Your task to perform on an android device: Search for macbook pro 15 inch on ebay.com, select the first entry, add it to the cart, then select checkout. Image 0: 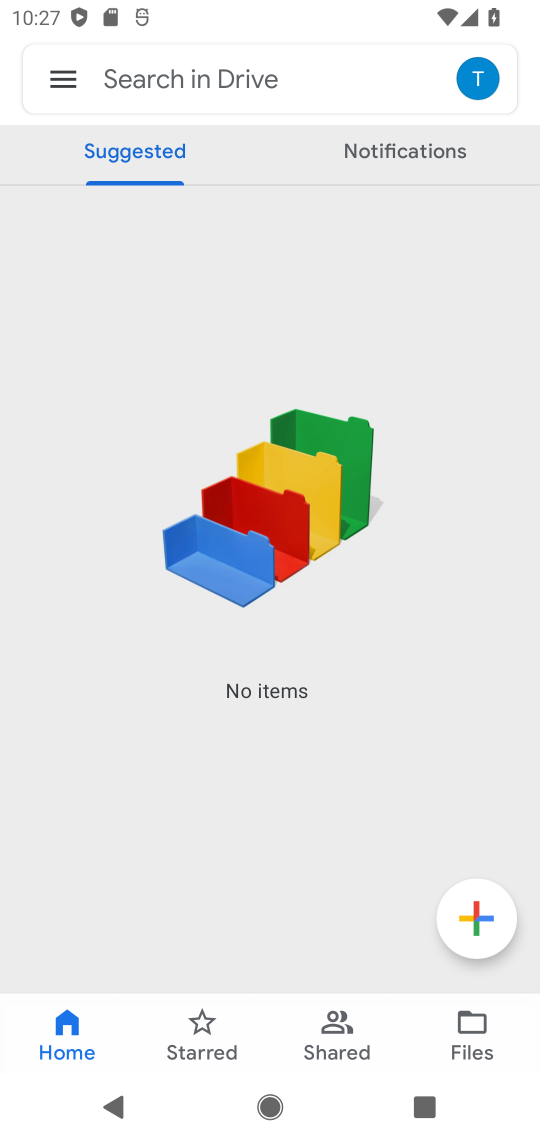
Step 0: press home button
Your task to perform on an android device: Search for macbook pro 15 inch on ebay.com, select the first entry, add it to the cart, then select checkout. Image 1: 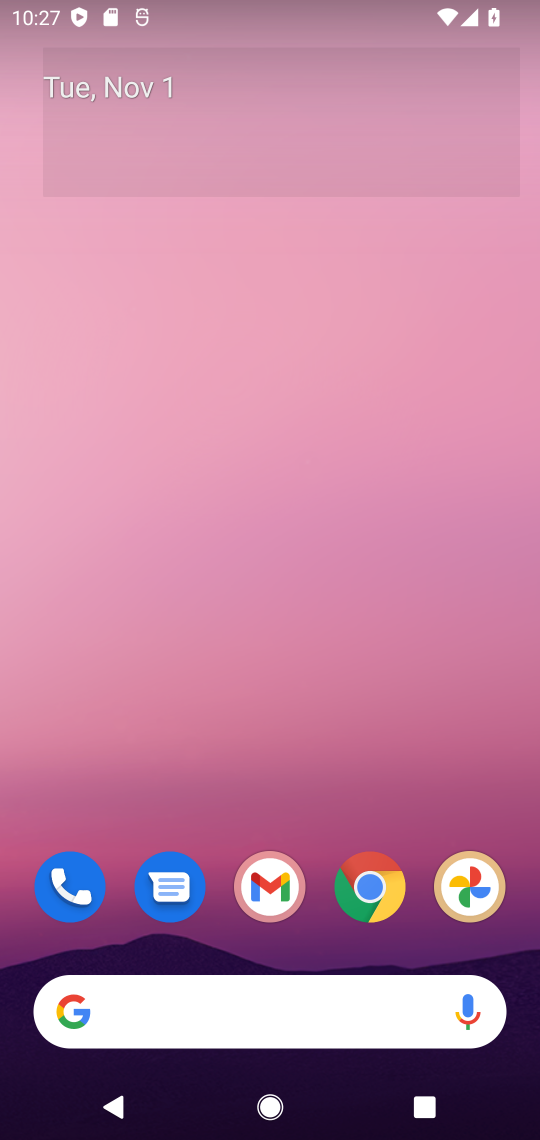
Step 1: click (363, 897)
Your task to perform on an android device: Search for macbook pro 15 inch on ebay.com, select the first entry, add it to the cart, then select checkout. Image 2: 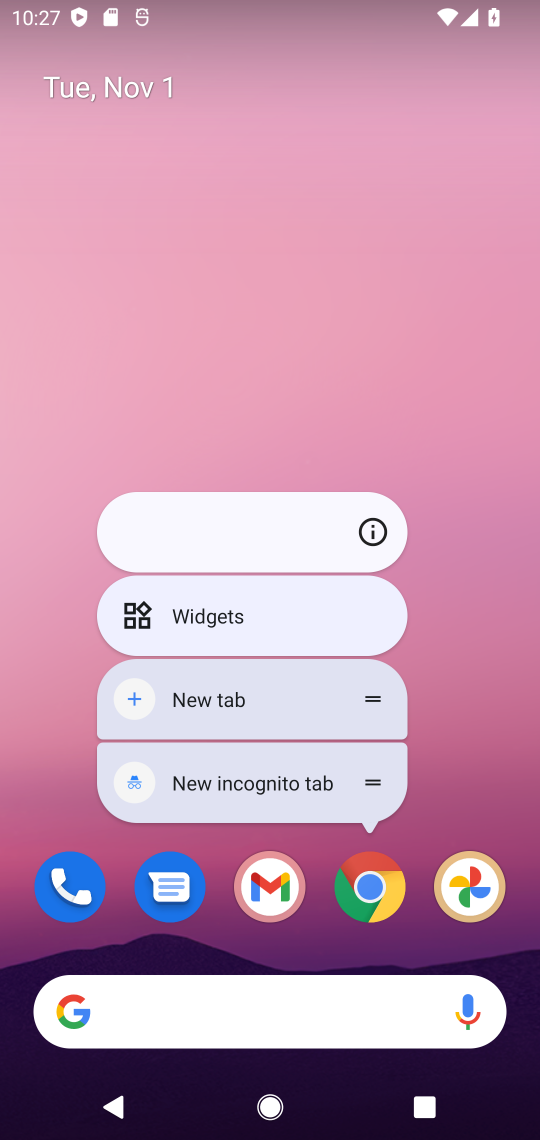
Step 2: click (463, 835)
Your task to perform on an android device: Search for macbook pro 15 inch on ebay.com, select the first entry, add it to the cart, then select checkout. Image 3: 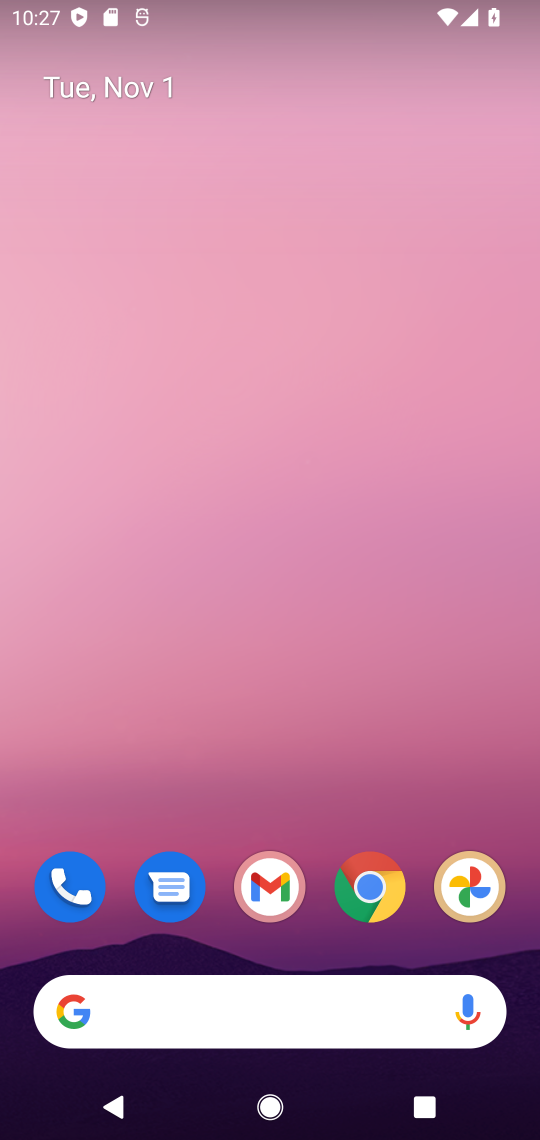
Step 3: click (374, 877)
Your task to perform on an android device: Search for macbook pro 15 inch on ebay.com, select the first entry, add it to the cart, then select checkout. Image 4: 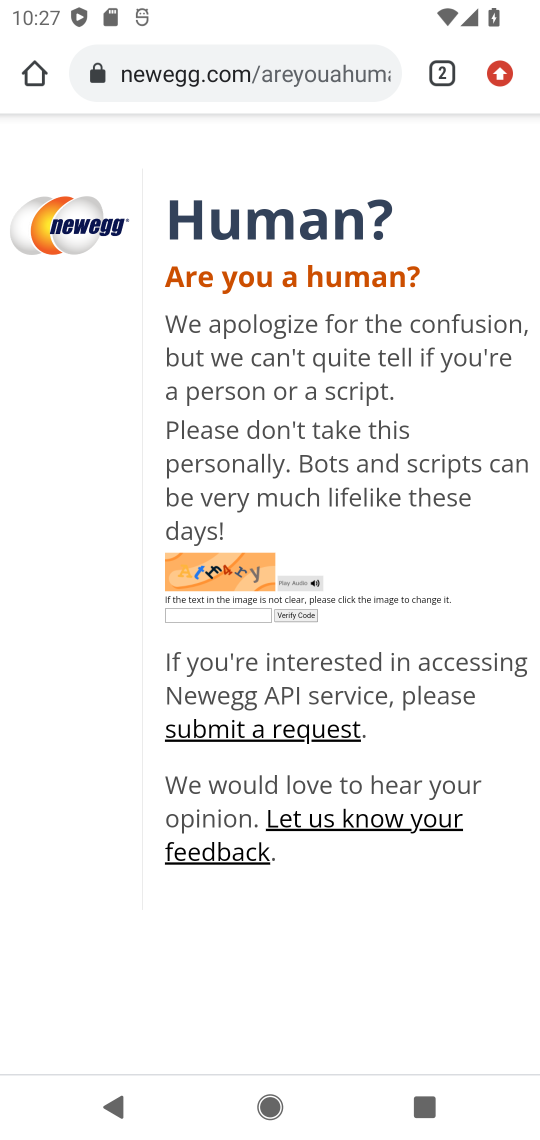
Step 4: click (256, 69)
Your task to perform on an android device: Search for macbook pro 15 inch on ebay.com, select the first entry, add it to the cart, then select checkout. Image 5: 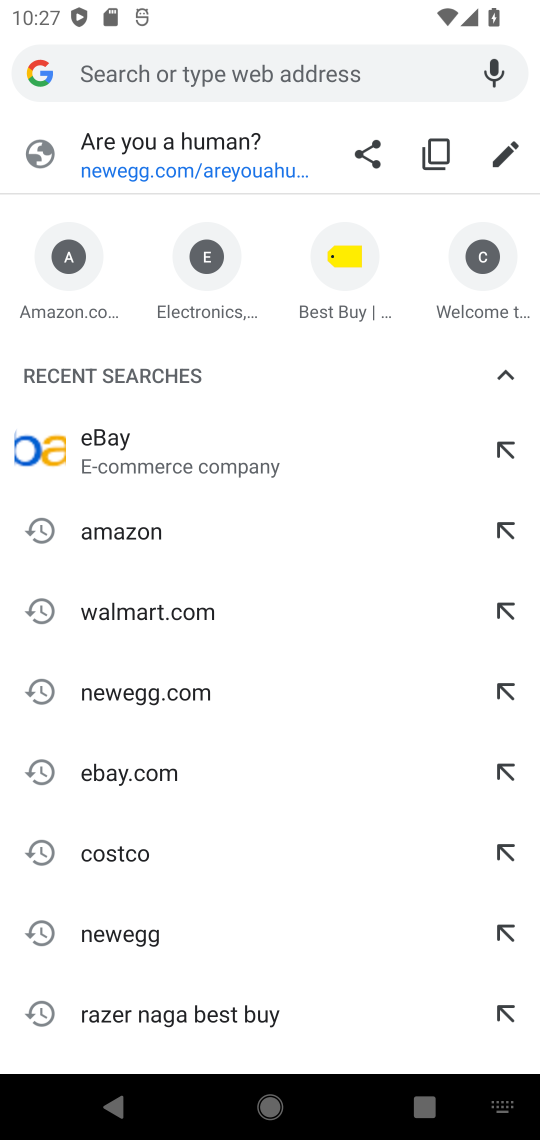
Step 5: type "ebay.com"
Your task to perform on an android device: Search for macbook pro 15 inch on ebay.com, select the first entry, add it to the cart, then select checkout. Image 6: 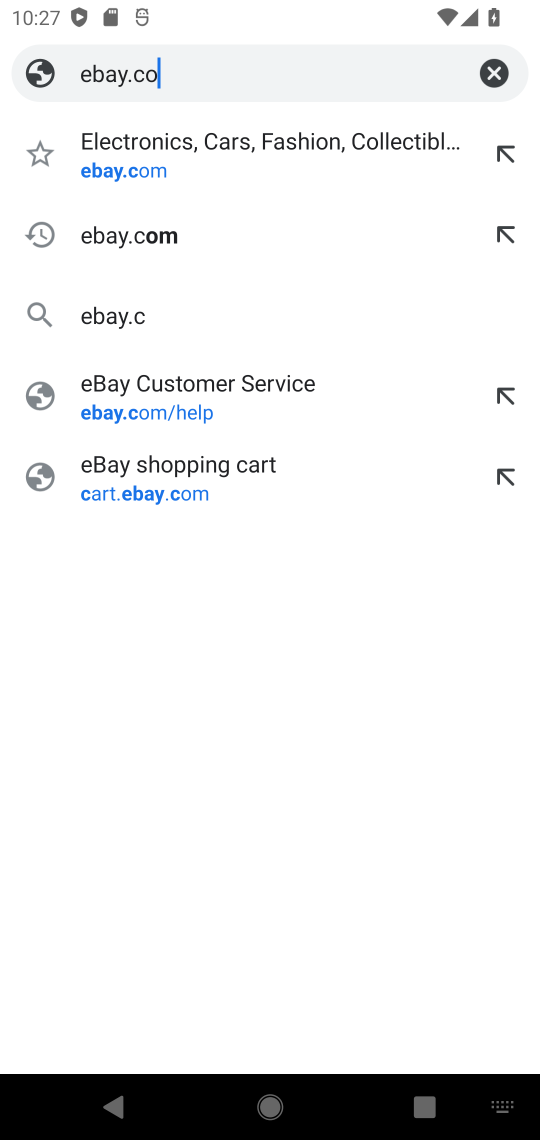
Step 6: press enter
Your task to perform on an android device: Search for macbook pro 15 inch on ebay.com, select the first entry, add it to the cart, then select checkout. Image 7: 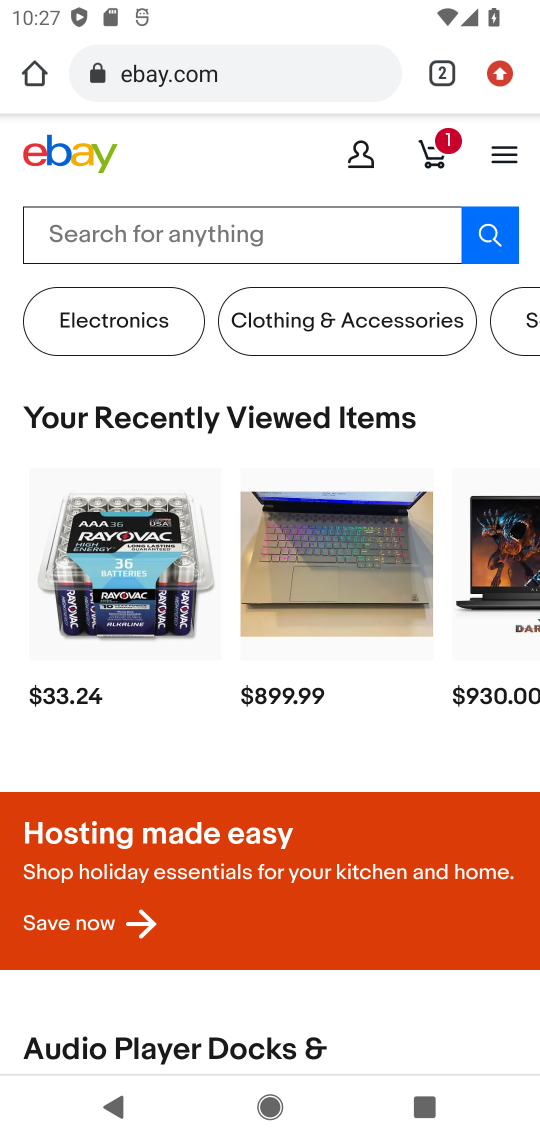
Step 7: click (276, 238)
Your task to perform on an android device: Search for macbook pro 15 inch on ebay.com, select the first entry, add it to the cart, then select checkout. Image 8: 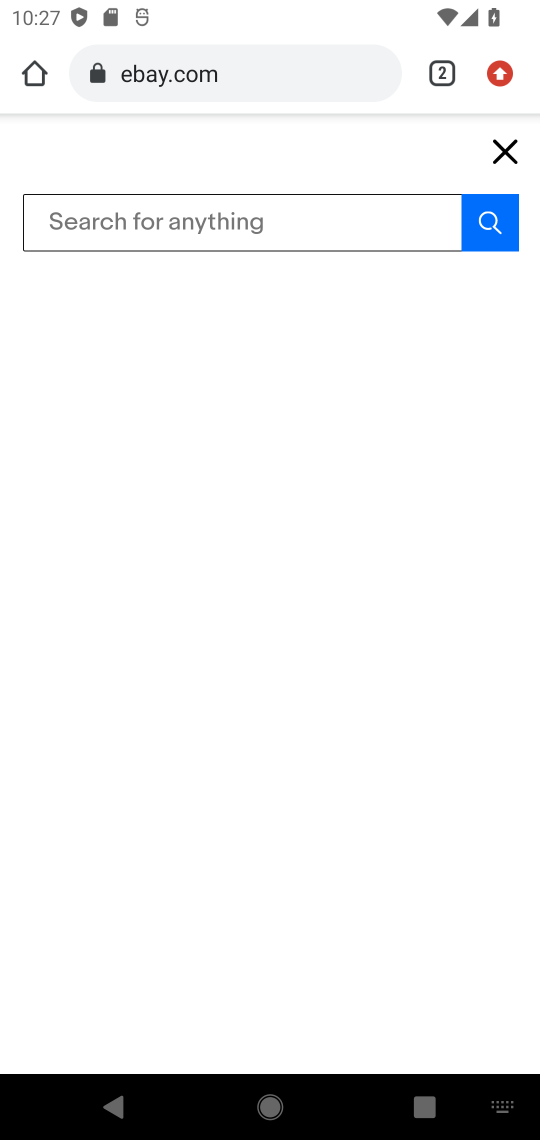
Step 8: type "macbook pro 15"
Your task to perform on an android device: Search for macbook pro 15 inch on ebay.com, select the first entry, add it to the cart, then select checkout. Image 9: 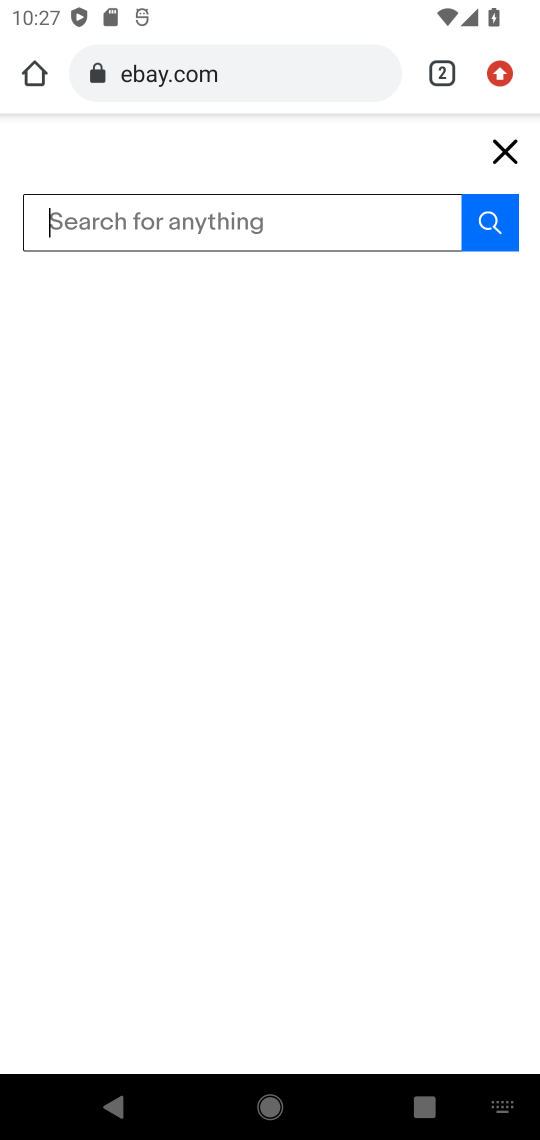
Step 9: press enter
Your task to perform on an android device: Search for macbook pro 15 inch on ebay.com, select the first entry, add it to the cart, then select checkout. Image 10: 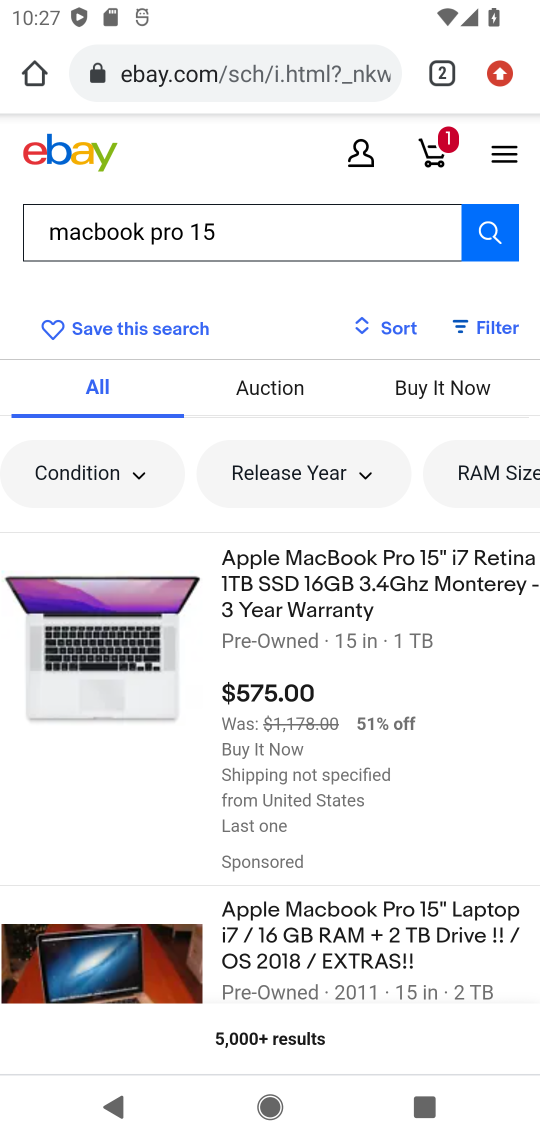
Step 10: click (129, 647)
Your task to perform on an android device: Search for macbook pro 15 inch on ebay.com, select the first entry, add it to the cart, then select checkout. Image 11: 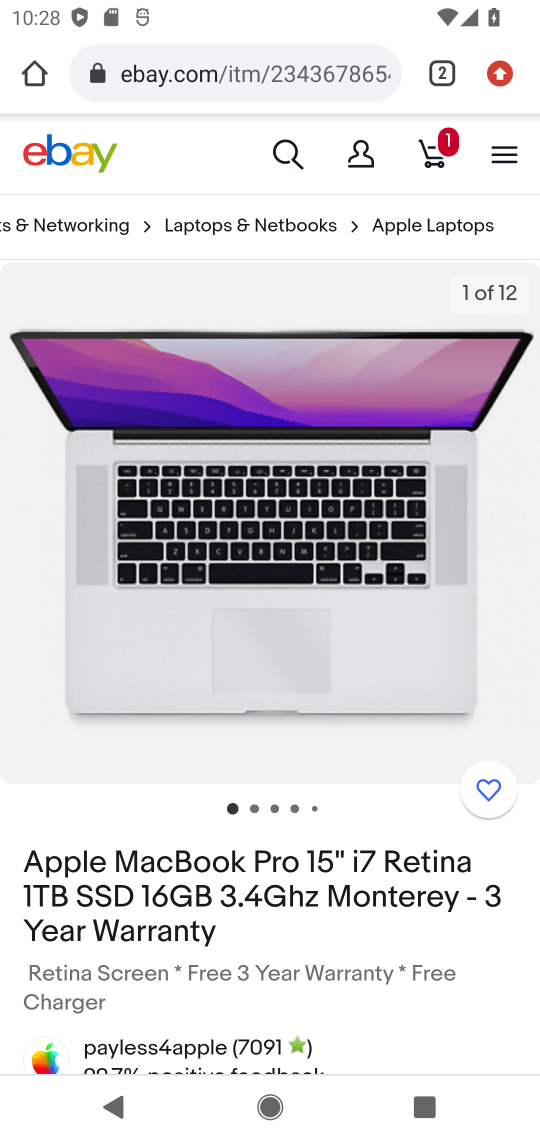
Step 11: drag from (323, 551) to (280, 350)
Your task to perform on an android device: Search for macbook pro 15 inch on ebay.com, select the first entry, add it to the cart, then select checkout. Image 12: 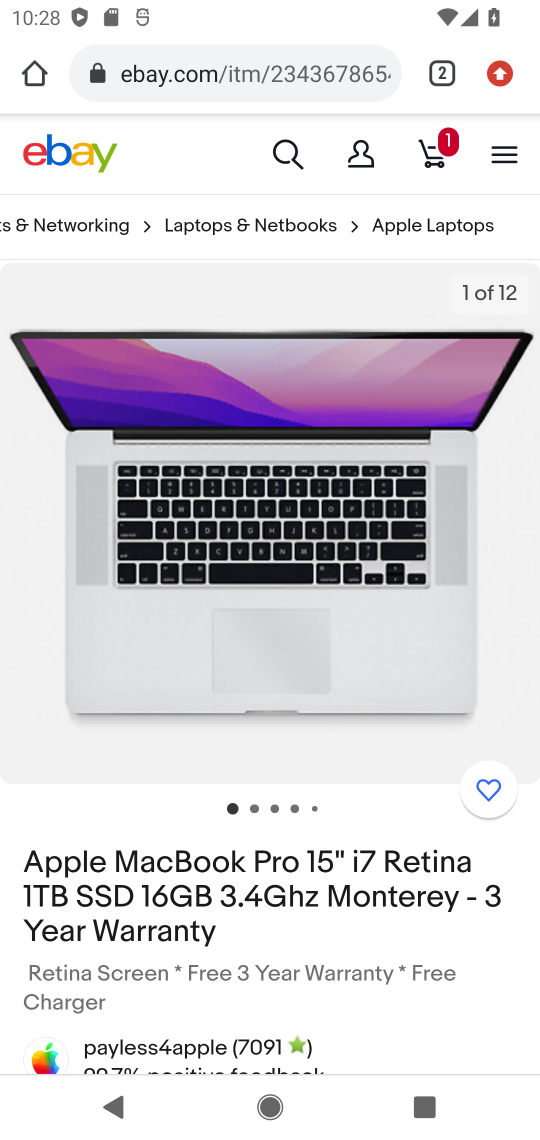
Step 12: drag from (327, 888) to (260, 424)
Your task to perform on an android device: Search for macbook pro 15 inch on ebay.com, select the first entry, add it to the cart, then select checkout. Image 13: 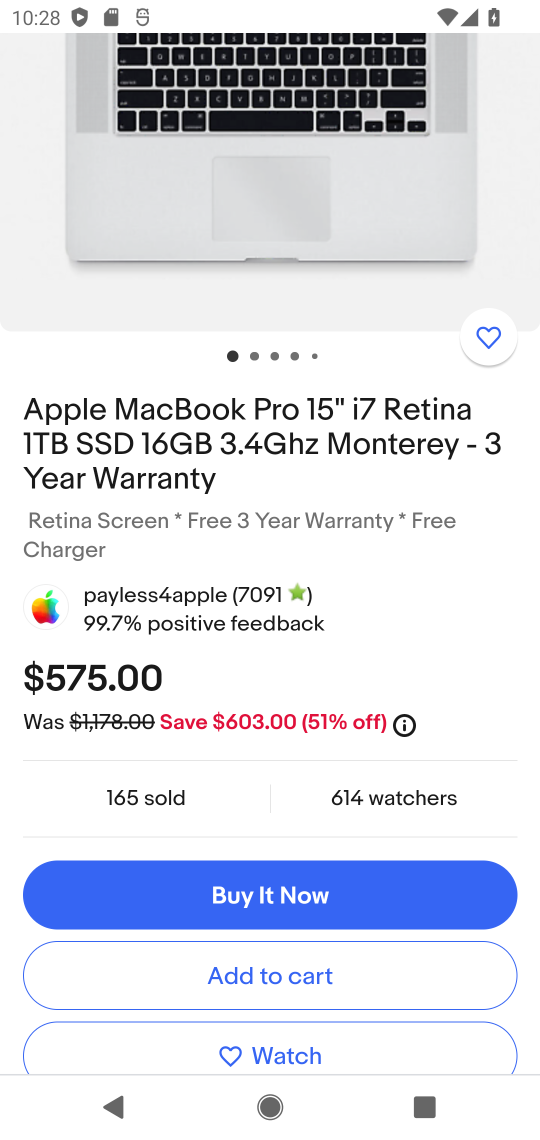
Step 13: click (352, 969)
Your task to perform on an android device: Search for macbook pro 15 inch on ebay.com, select the first entry, add it to the cart, then select checkout. Image 14: 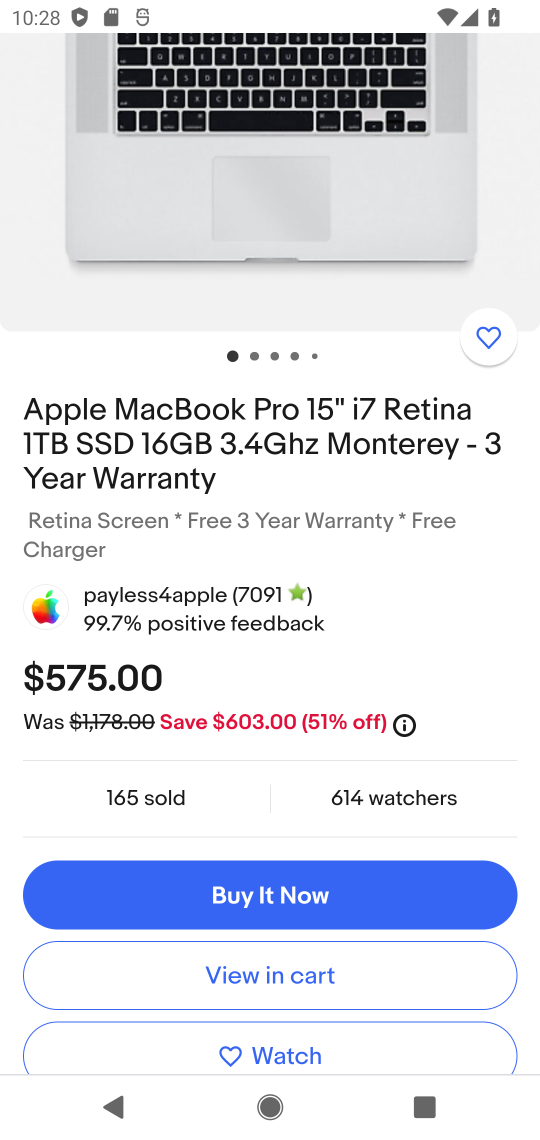
Step 14: click (315, 962)
Your task to perform on an android device: Search for macbook pro 15 inch on ebay.com, select the first entry, add it to the cart, then select checkout. Image 15: 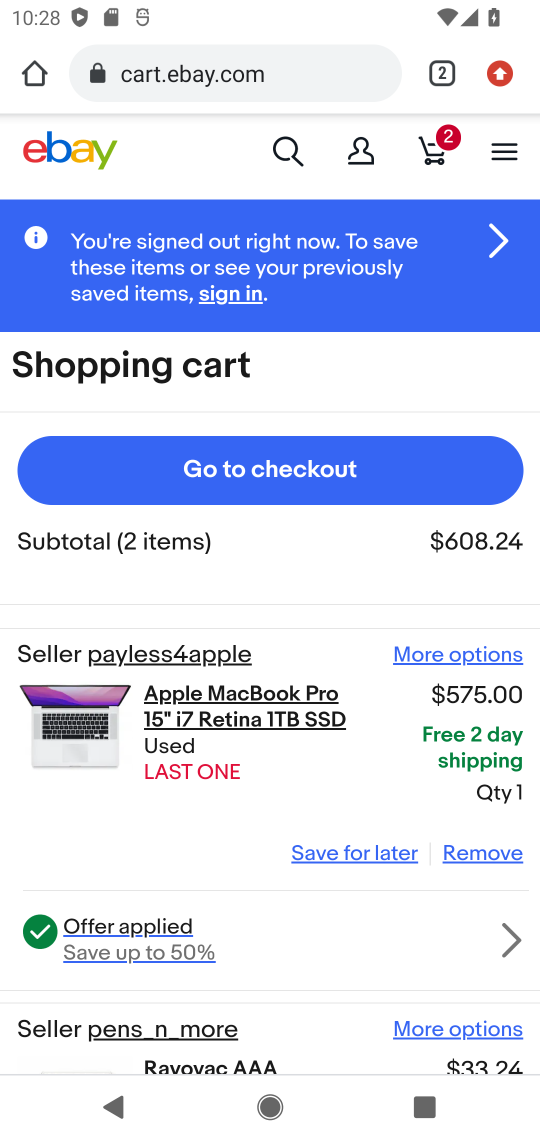
Step 15: click (278, 479)
Your task to perform on an android device: Search for macbook pro 15 inch on ebay.com, select the first entry, add it to the cart, then select checkout. Image 16: 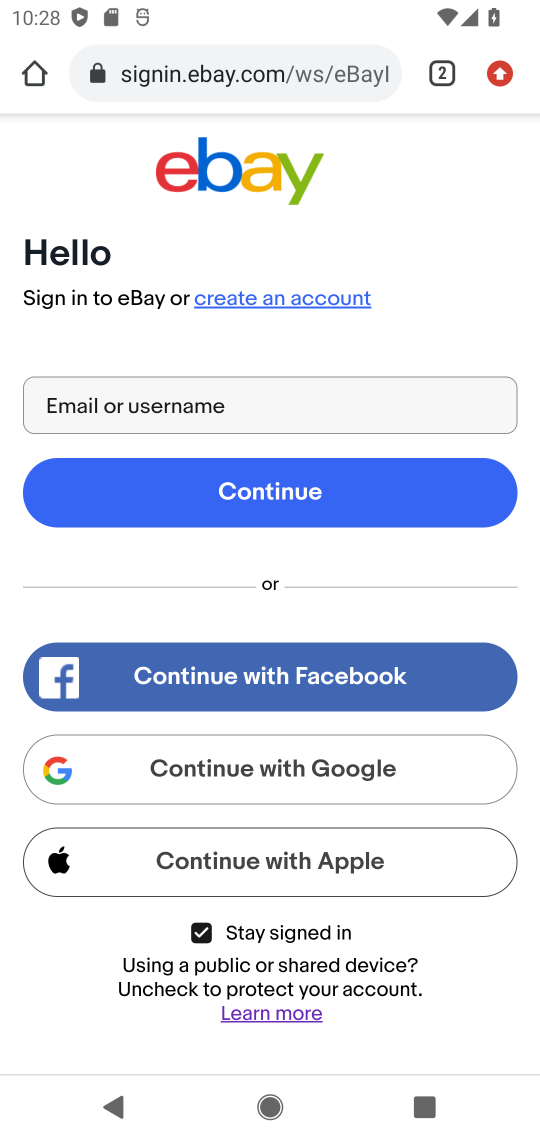
Step 16: task complete